Your task to perform on an android device: Open location settings Image 0: 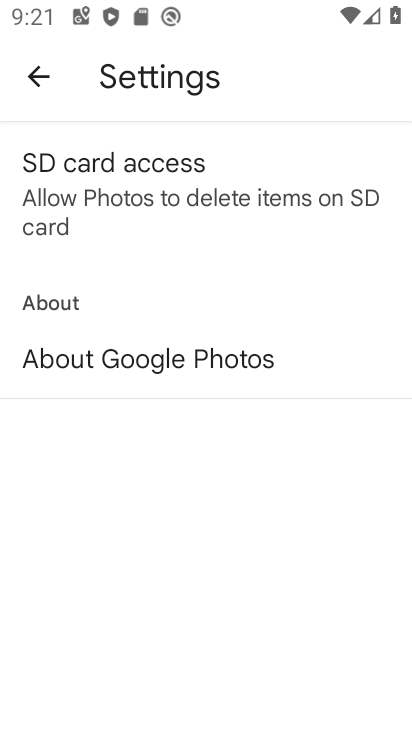
Step 0: press home button
Your task to perform on an android device: Open location settings Image 1: 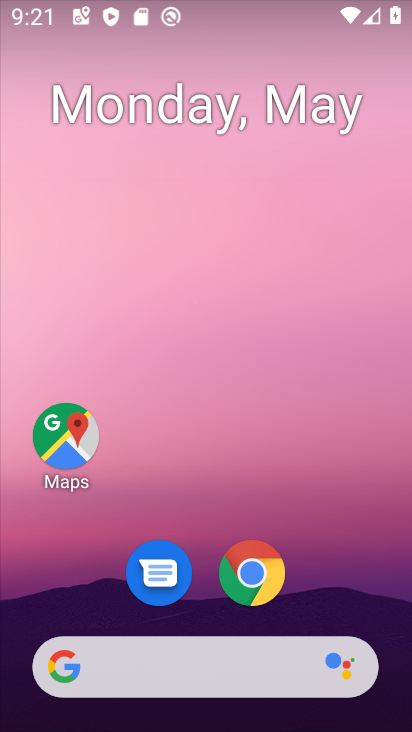
Step 1: drag from (339, 572) to (306, 143)
Your task to perform on an android device: Open location settings Image 2: 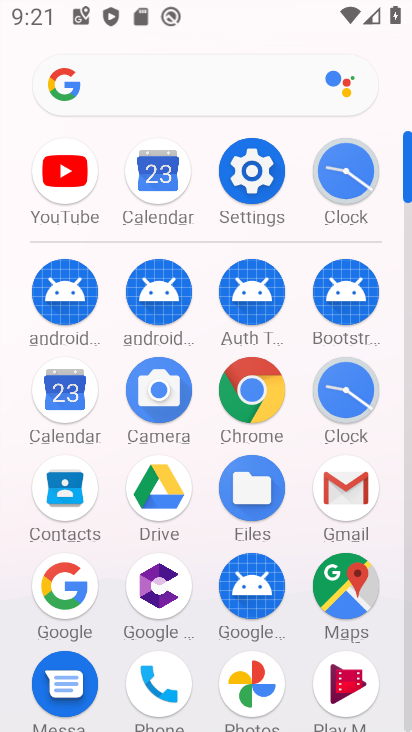
Step 2: click (242, 174)
Your task to perform on an android device: Open location settings Image 3: 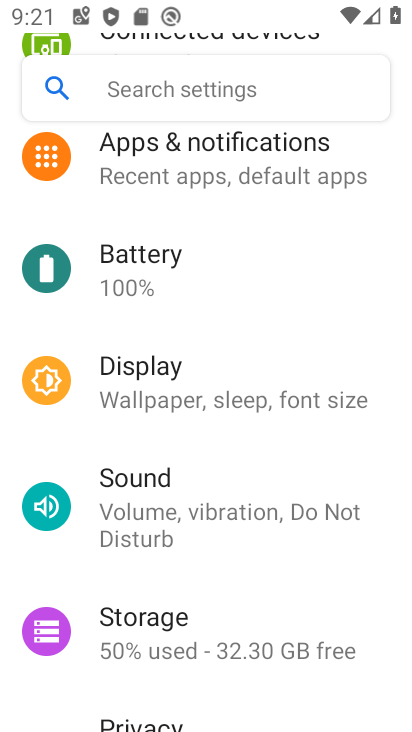
Step 3: drag from (266, 558) to (223, 289)
Your task to perform on an android device: Open location settings Image 4: 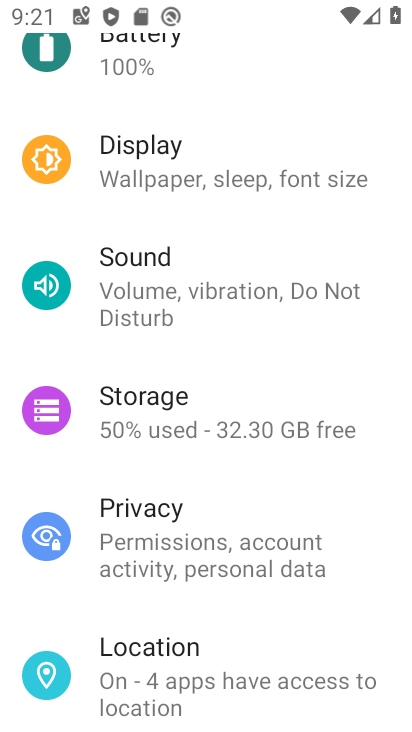
Step 4: click (290, 681)
Your task to perform on an android device: Open location settings Image 5: 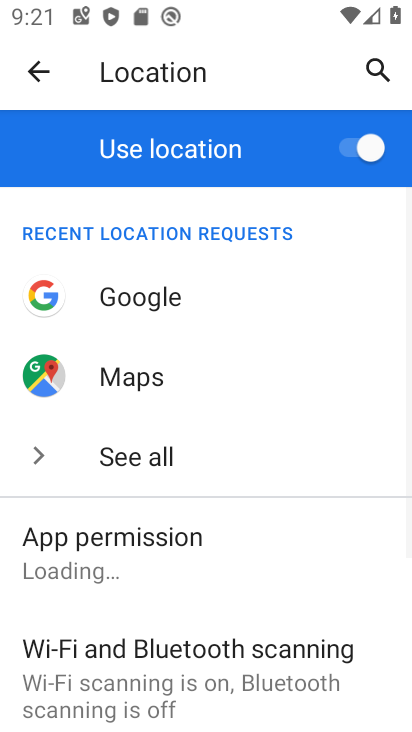
Step 5: task complete